Your task to perform on an android device: find which apps use the phone's location Image 0: 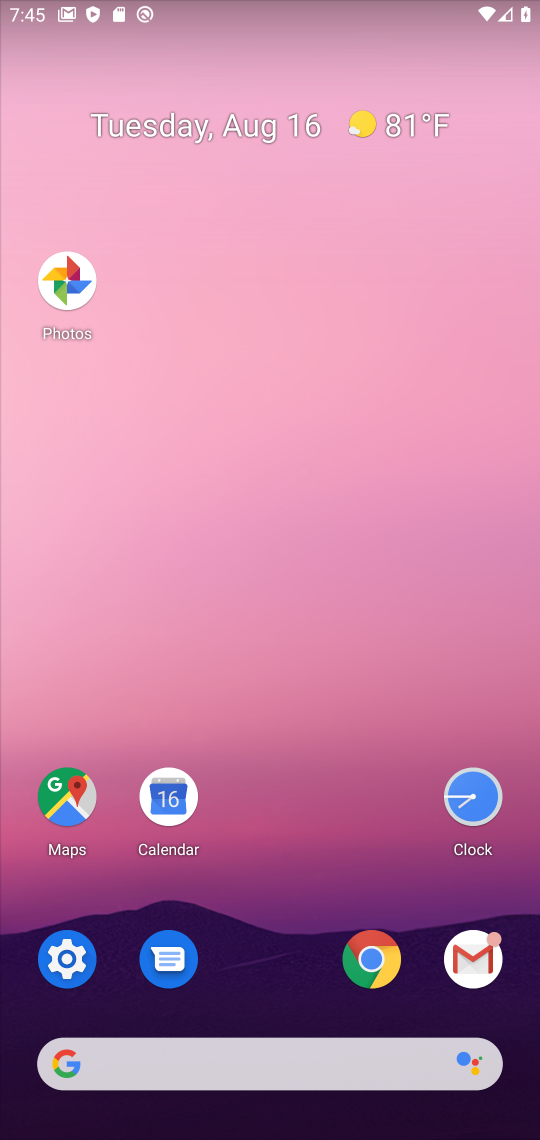
Step 0: click (61, 959)
Your task to perform on an android device: find which apps use the phone's location Image 1: 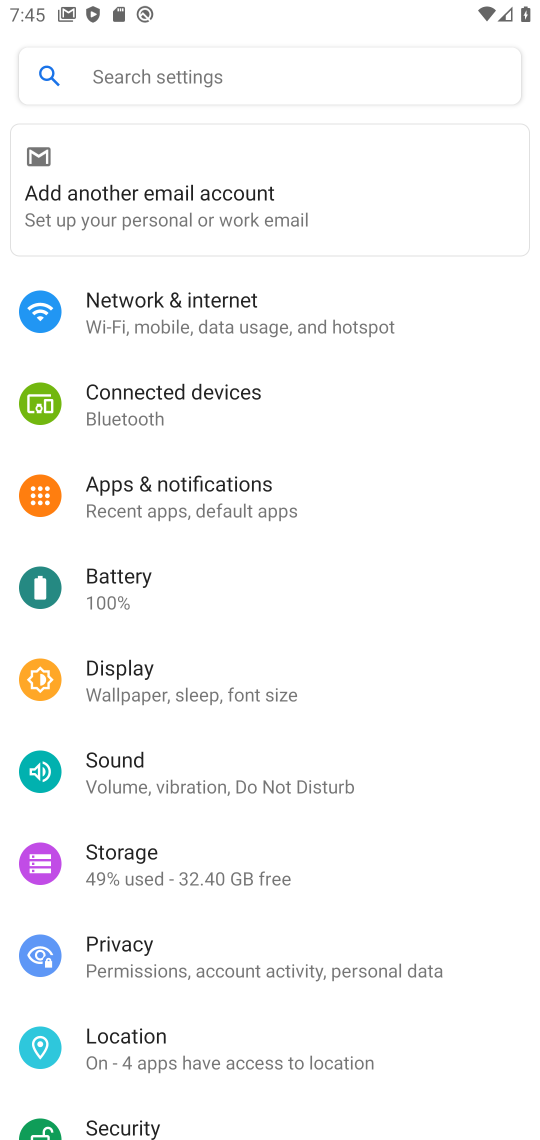
Step 1: click (132, 1044)
Your task to perform on an android device: find which apps use the phone's location Image 2: 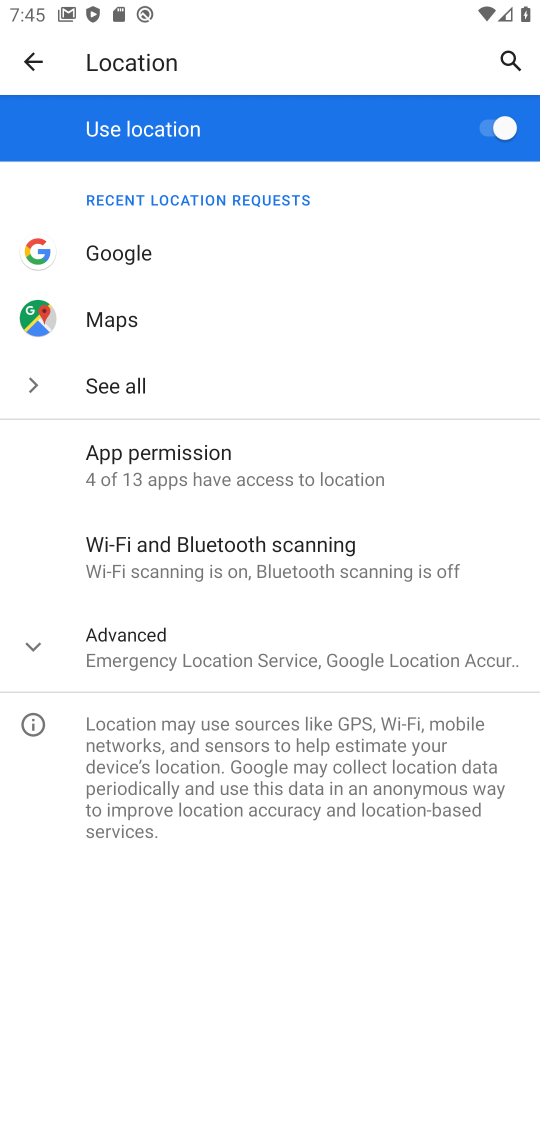
Step 2: click (99, 395)
Your task to perform on an android device: find which apps use the phone's location Image 3: 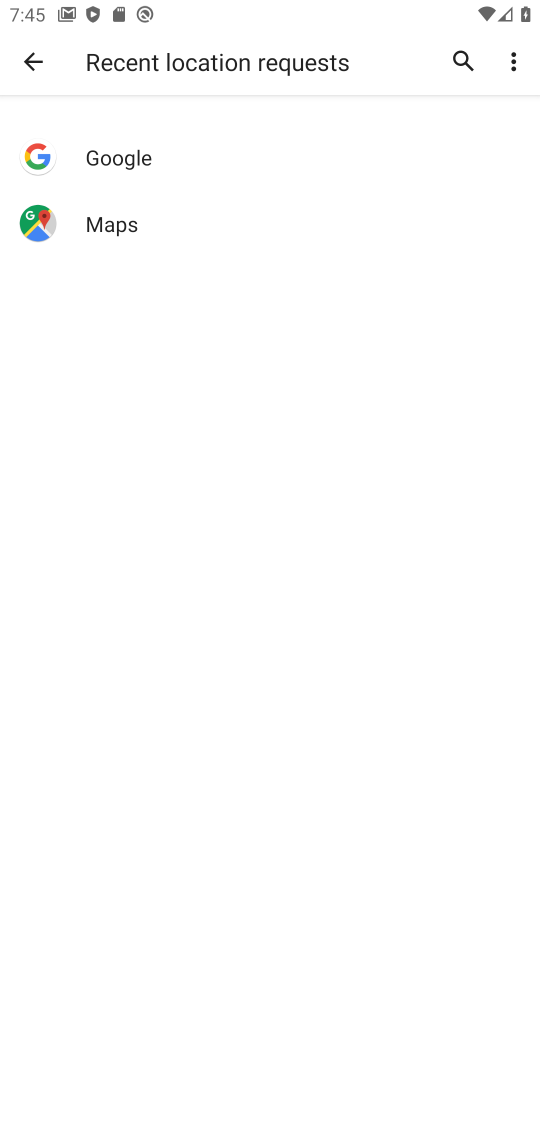
Step 3: task complete